Your task to perform on an android device: Open display settings Image 0: 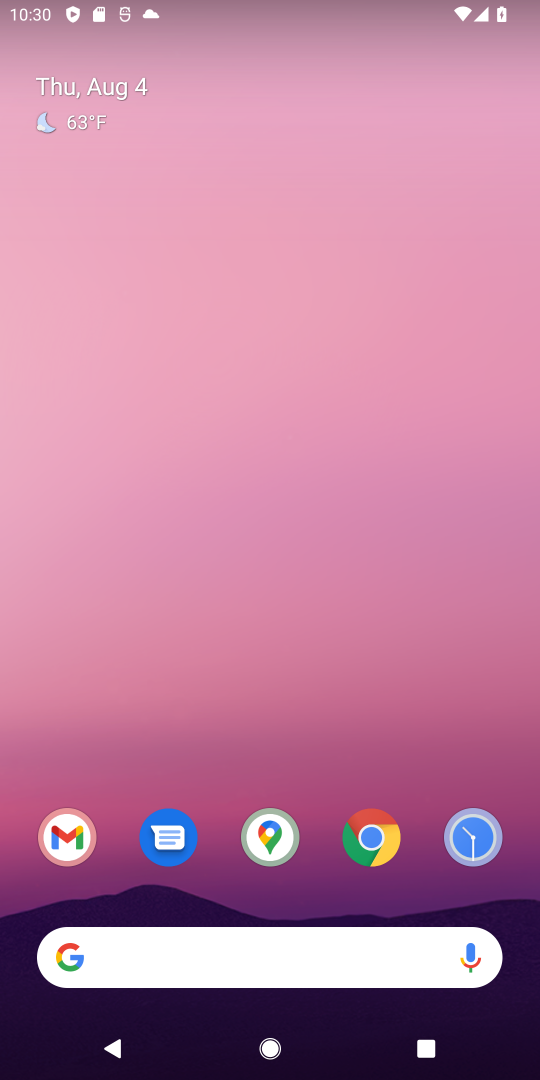
Step 0: drag from (323, 917) to (323, 246)
Your task to perform on an android device: Open display settings Image 1: 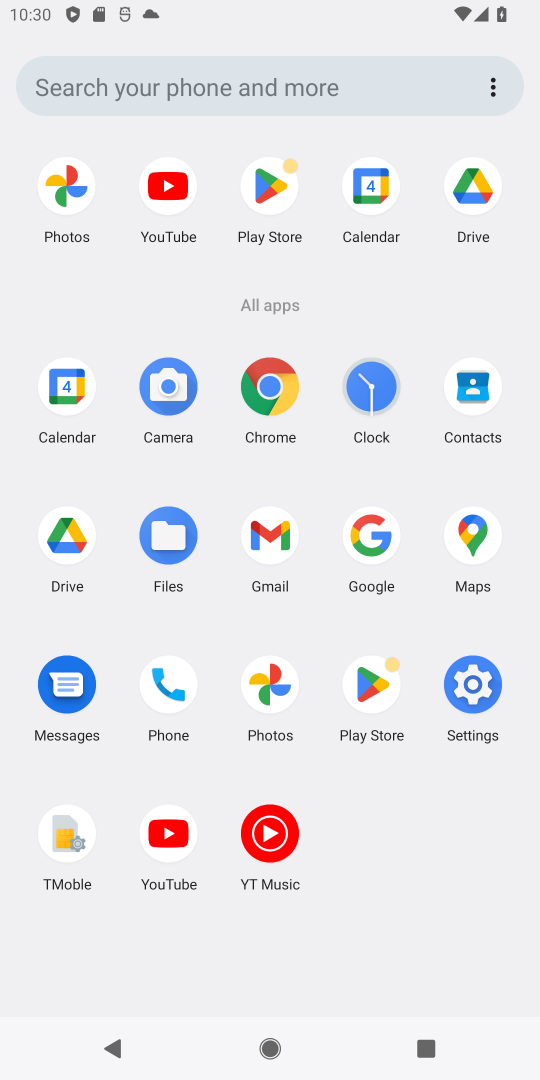
Step 1: click (470, 673)
Your task to perform on an android device: Open display settings Image 2: 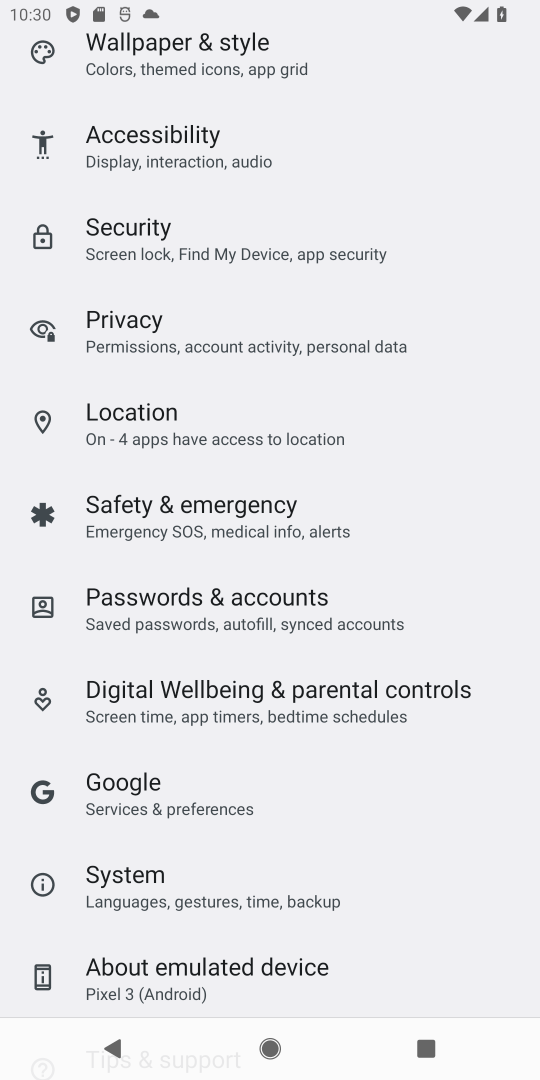
Step 2: drag from (185, 308) to (204, 879)
Your task to perform on an android device: Open display settings Image 3: 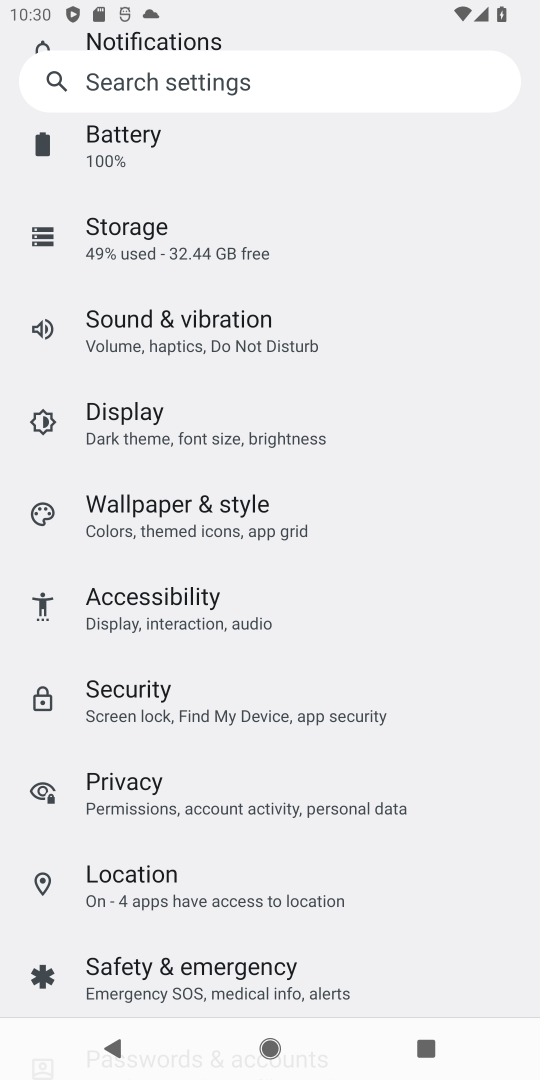
Step 3: click (151, 405)
Your task to perform on an android device: Open display settings Image 4: 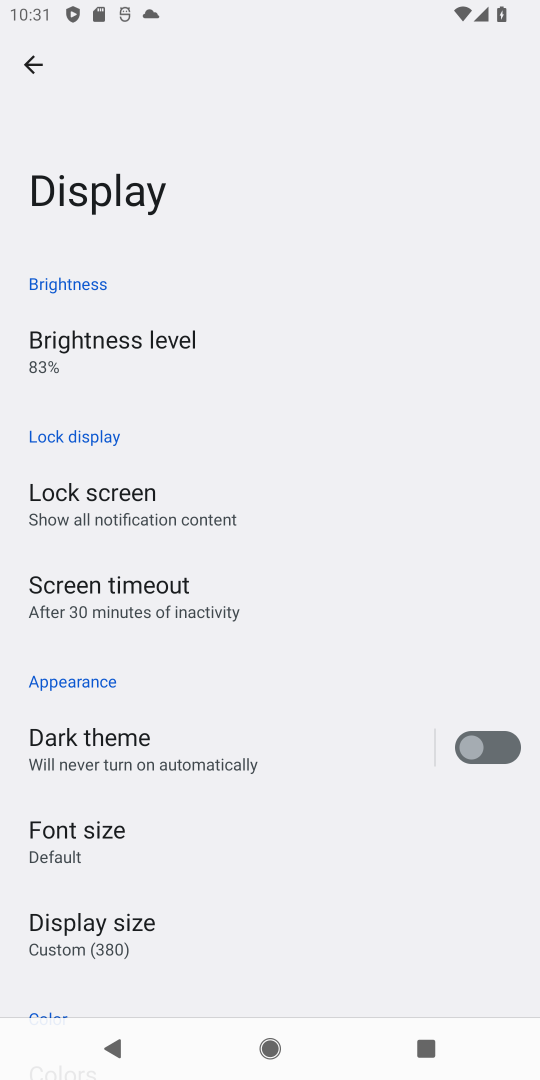
Step 4: task complete